Your task to perform on an android device: find snoozed emails in the gmail app Image 0: 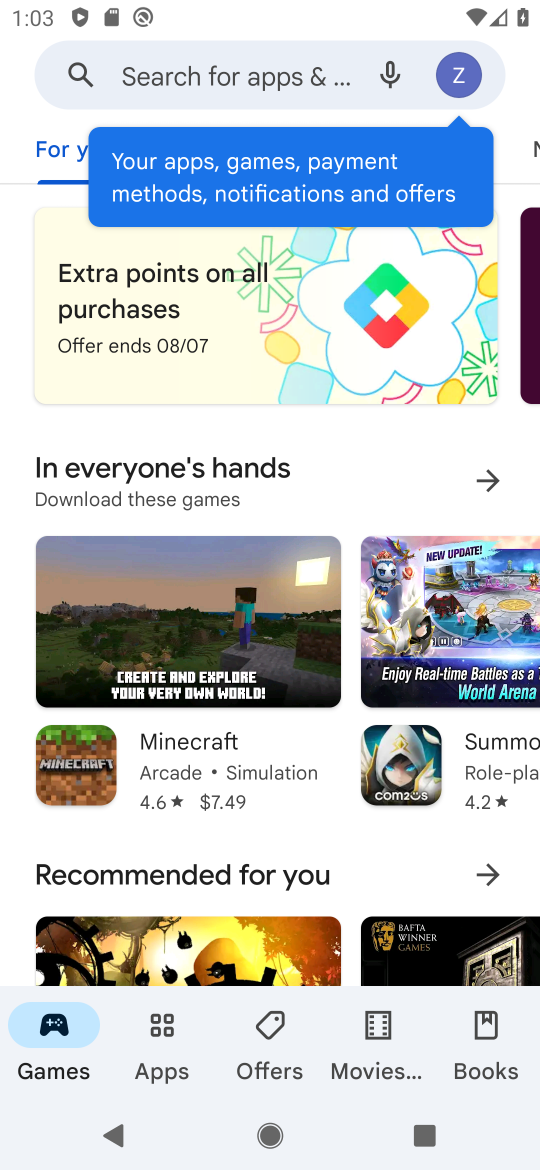
Step 0: drag from (332, 850) to (309, 243)
Your task to perform on an android device: find snoozed emails in the gmail app Image 1: 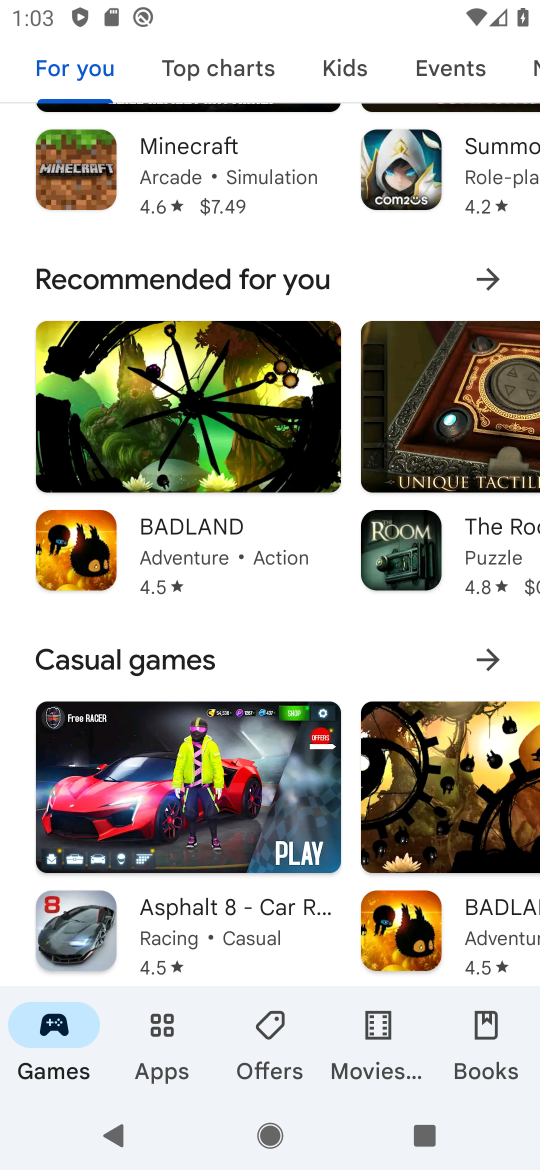
Step 1: click (346, 590)
Your task to perform on an android device: find snoozed emails in the gmail app Image 2: 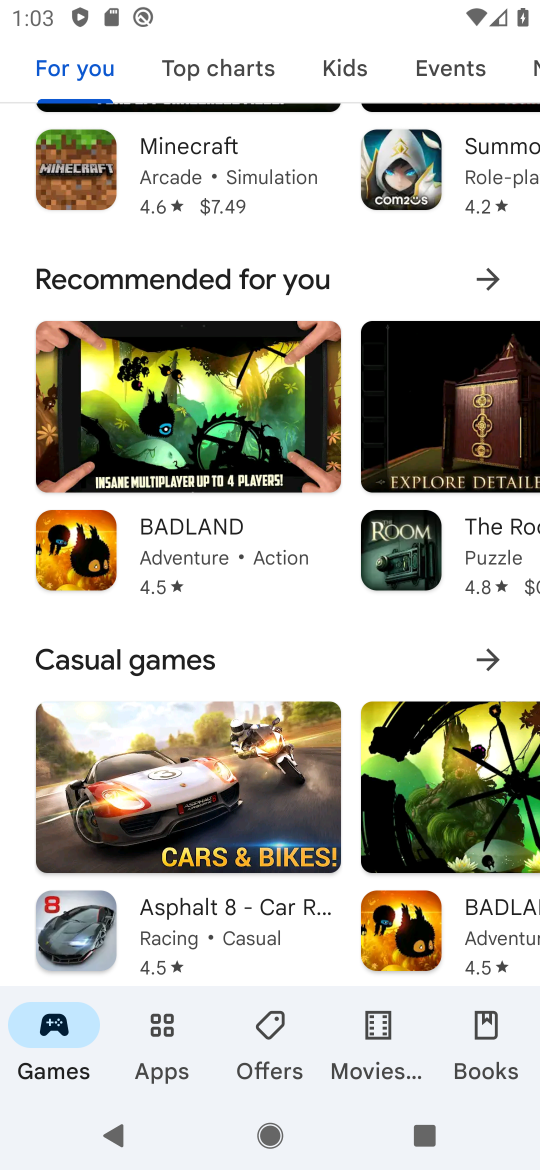
Step 2: drag from (340, 262) to (368, 393)
Your task to perform on an android device: find snoozed emails in the gmail app Image 3: 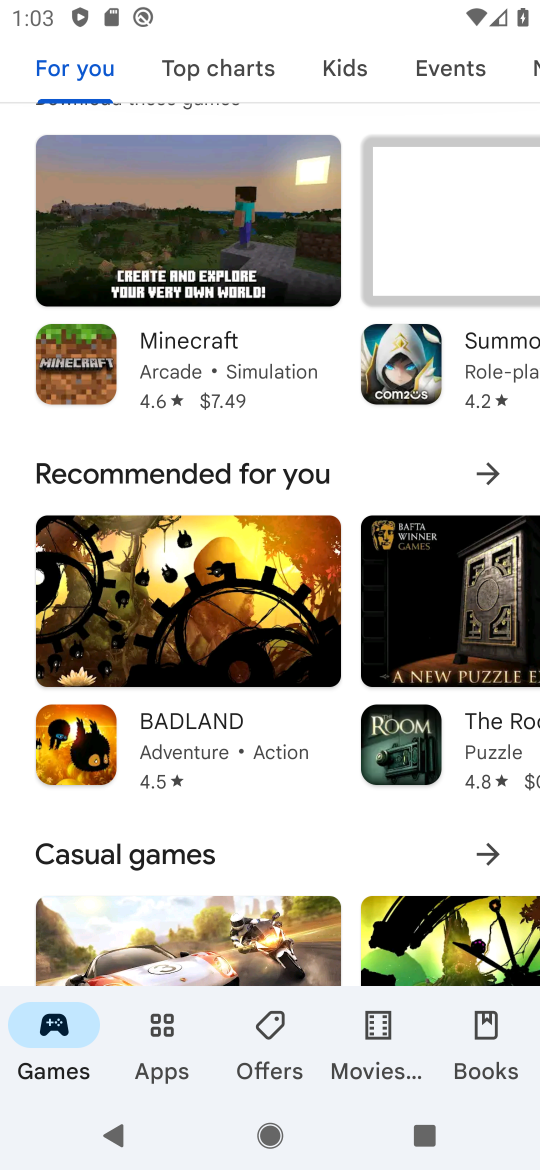
Step 3: drag from (332, 262) to (378, 870)
Your task to perform on an android device: find snoozed emails in the gmail app Image 4: 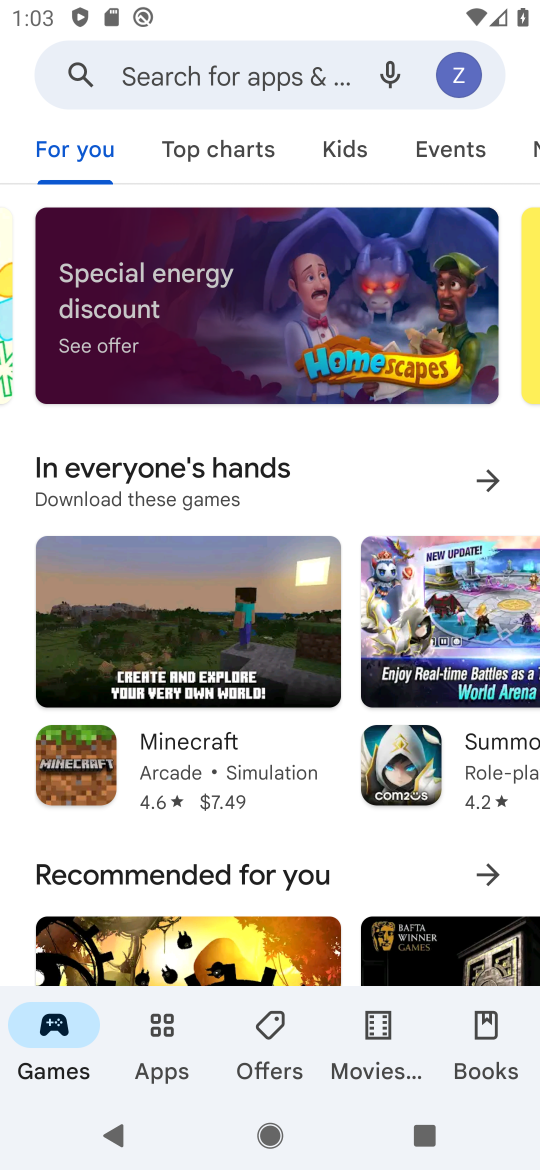
Step 4: press home button
Your task to perform on an android device: find snoozed emails in the gmail app Image 5: 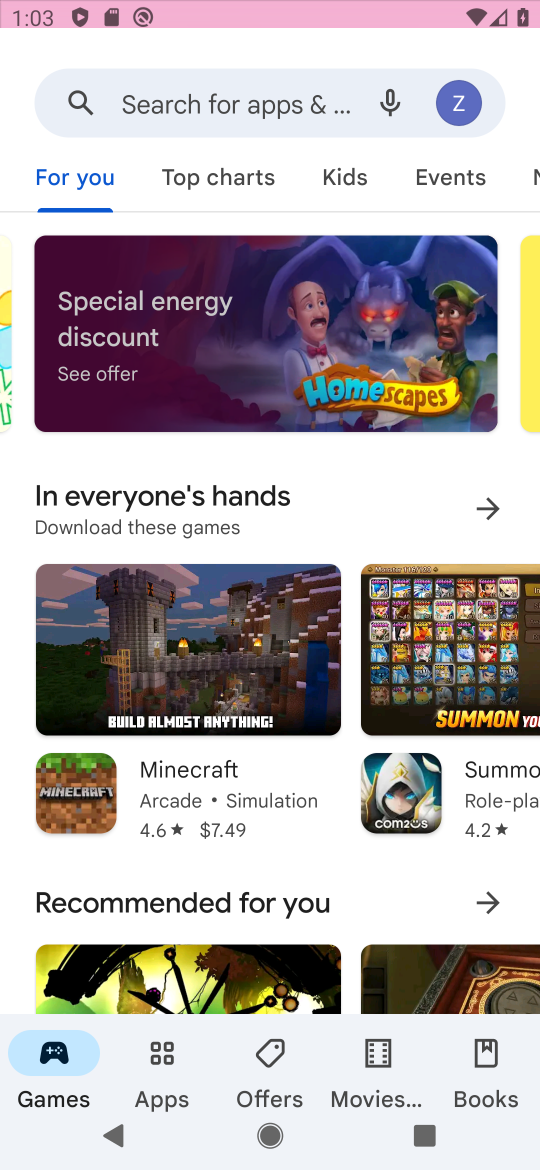
Step 5: drag from (306, 15) to (339, 165)
Your task to perform on an android device: find snoozed emails in the gmail app Image 6: 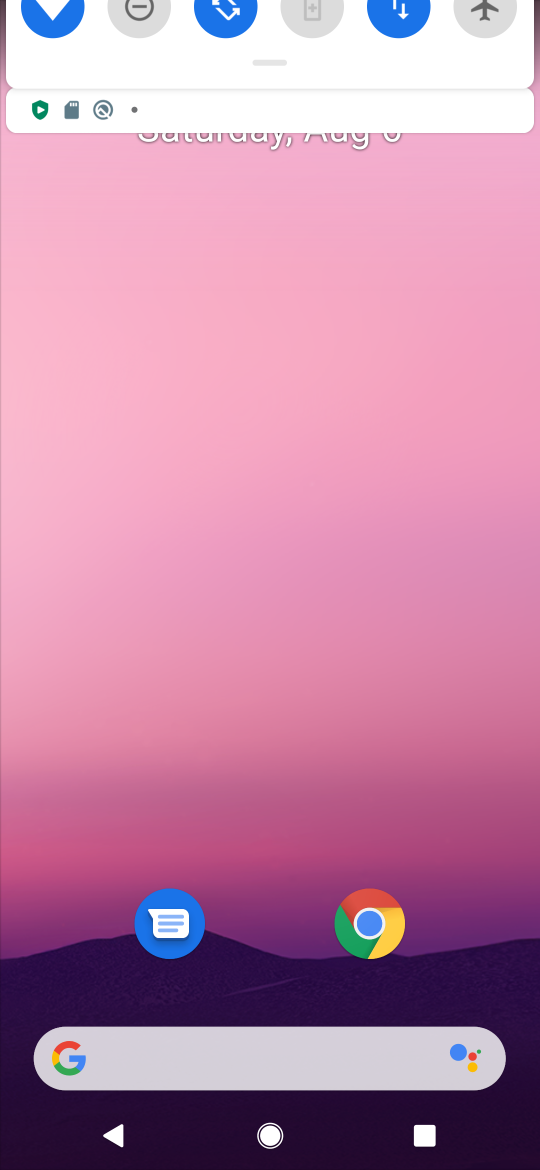
Step 6: drag from (258, 844) to (264, 81)
Your task to perform on an android device: find snoozed emails in the gmail app Image 7: 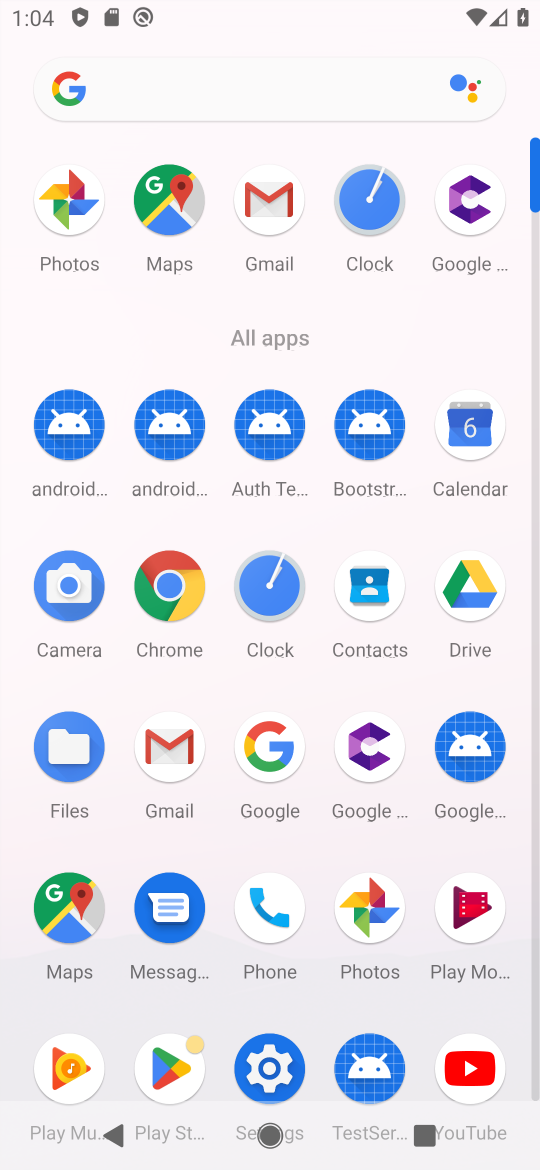
Step 7: click (161, 727)
Your task to perform on an android device: find snoozed emails in the gmail app Image 8: 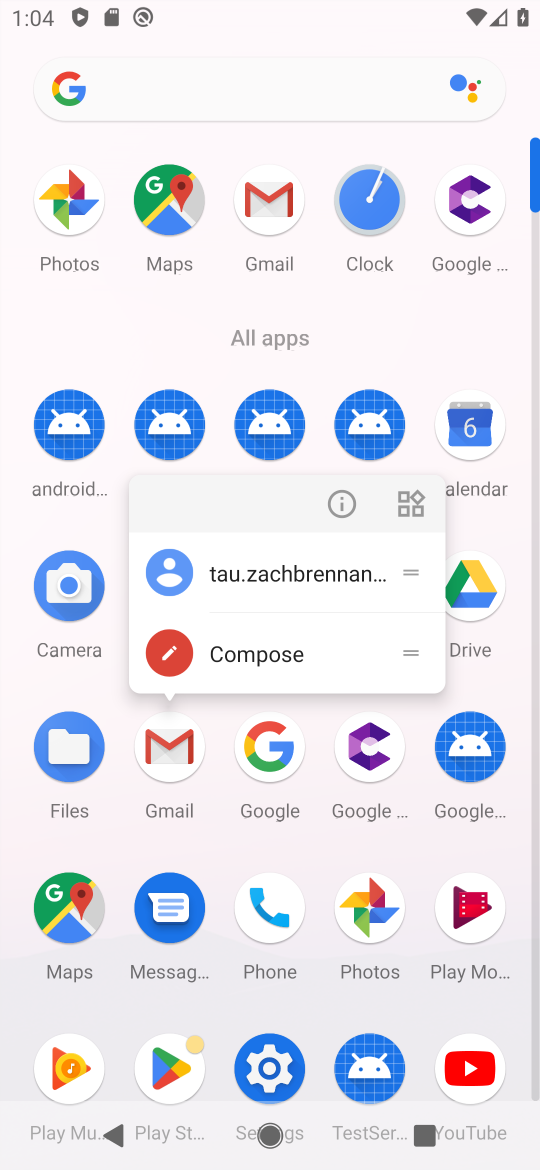
Step 8: click (337, 498)
Your task to perform on an android device: find snoozed emails in the gmail app Image 9: 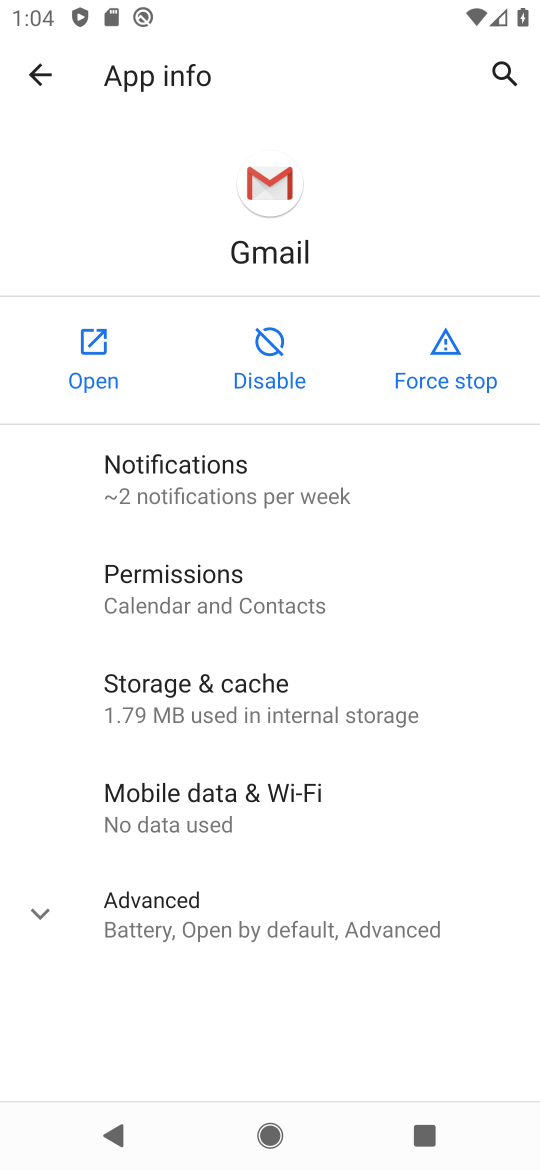
Step 9: click (84, 375)
Your task to perform on an android device: find snoozed emails in the gmail app Image 10: 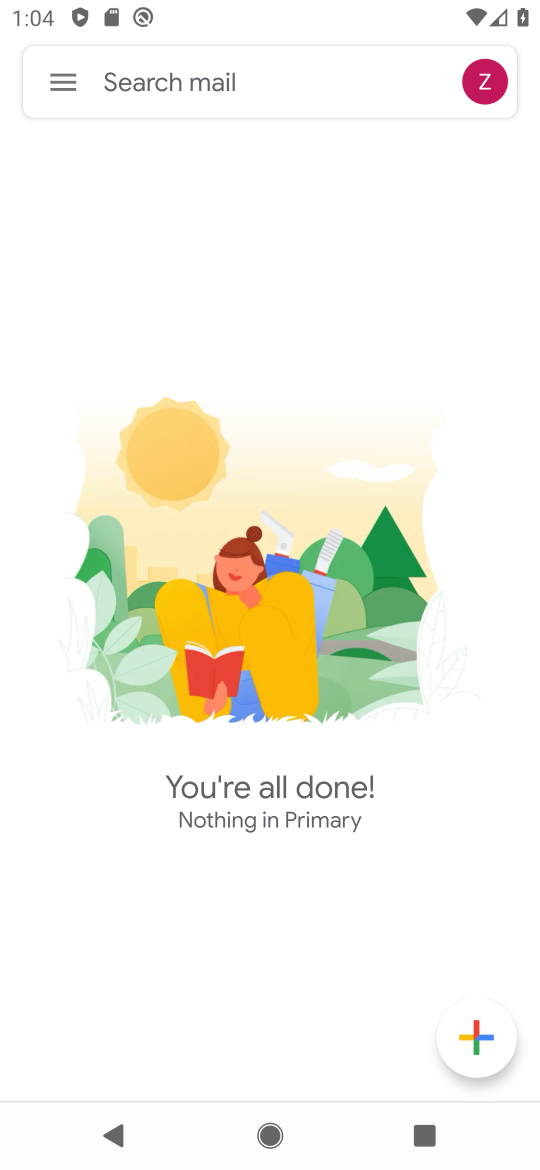
Step 10: click (45, 81)
Your task to perform on an android device: find snoozed emails in the gmail app Image 11: 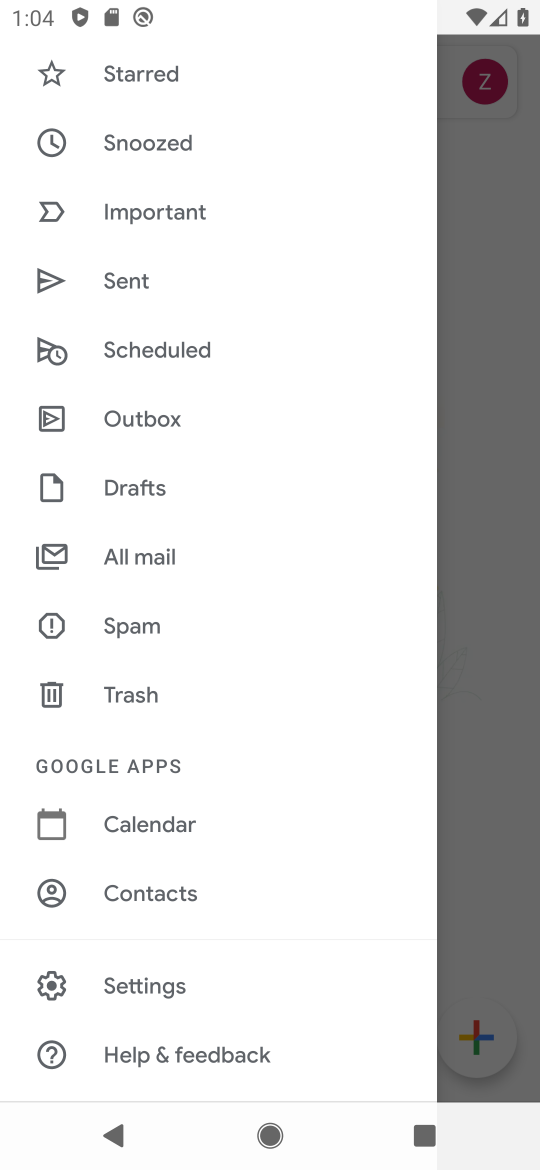
Step 11: click (148, 145)
Your task to perform on an android device: find snoozed emails in the gmail app Image 12: 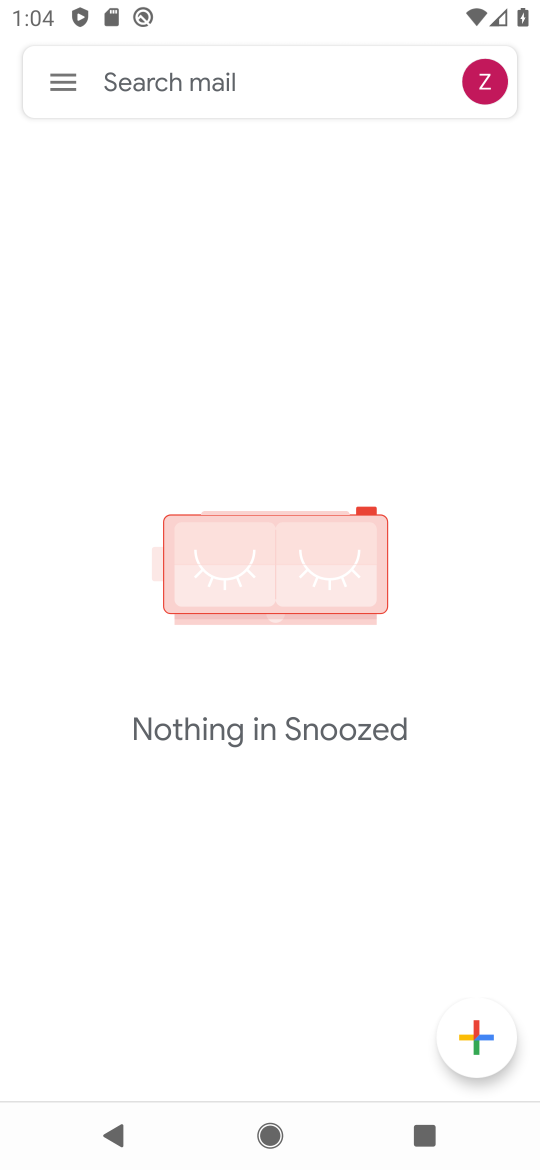
Step 12: task complete